Your task to perform on an android device: Open maps Image 0: 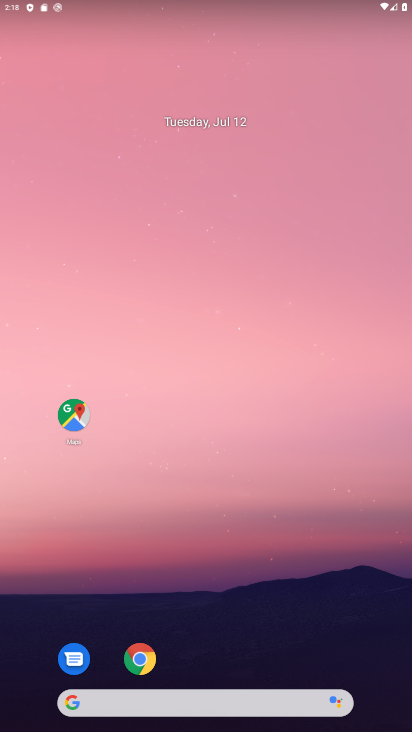
Step 0: click (83, 419)
Your task to perform on an android device: Open maps Image 1: 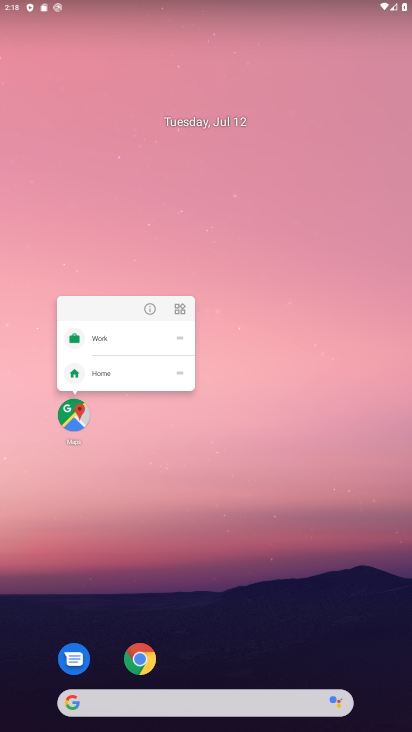
Step 1: click (82, 418)
Your task to perform on an android device: Open maps Image 2: 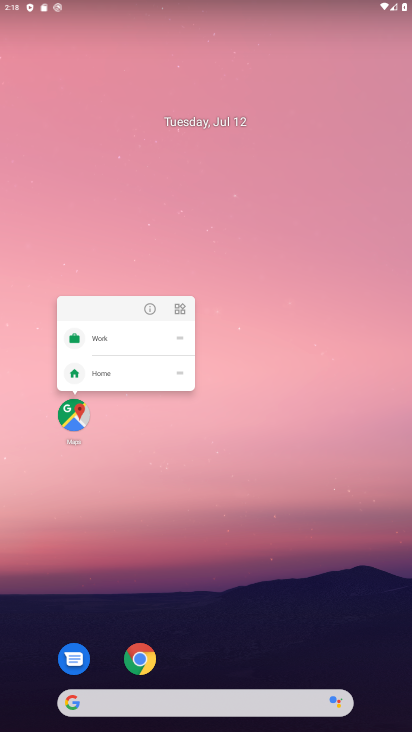
Step 2: click (75, 414)
Your task to perform on an android device: Open maps Image 3: 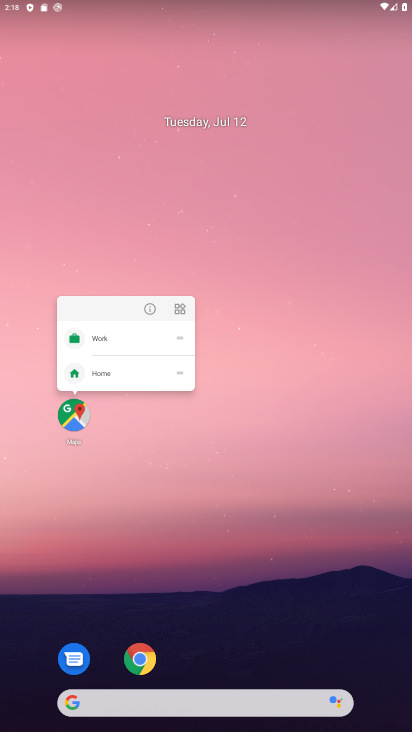
Step 3: click (75, 414)
Your task to perform on an android device: Open maps Image 4: 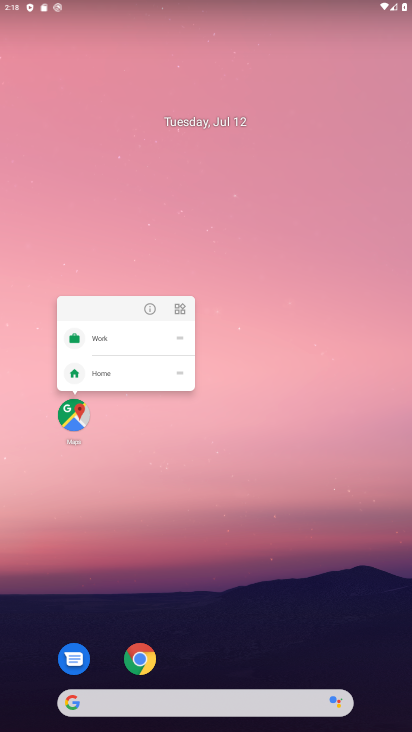
Step 4: click (75, 408)
Your task to perform on an android device: Open maps Image 5: 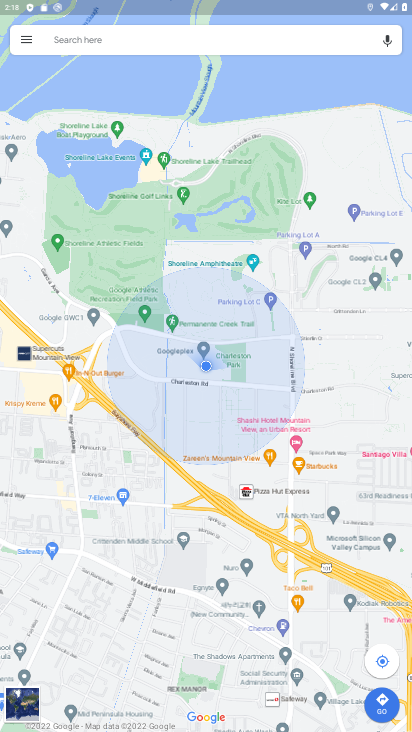
Step 5: task complete